Your task to perform on an android device: search for starred emails in the gmail app Image 0: 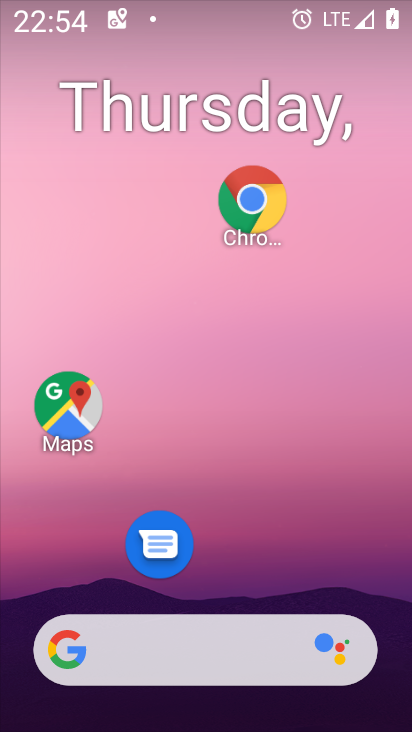
Step 0: drag from (224, 600) to (322, 50)
Your task to perform on an android device: search for starred emails in the gmail app Image 1: 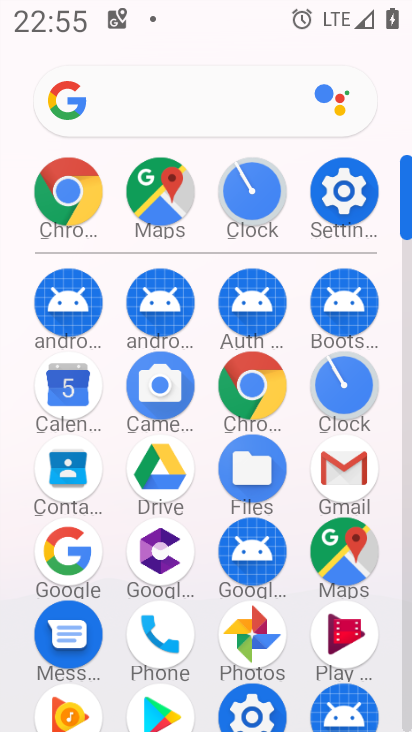
Step 1: click (326, 451)
Your task to perform on an android device: search for starred emails in the gmail app Image 2: 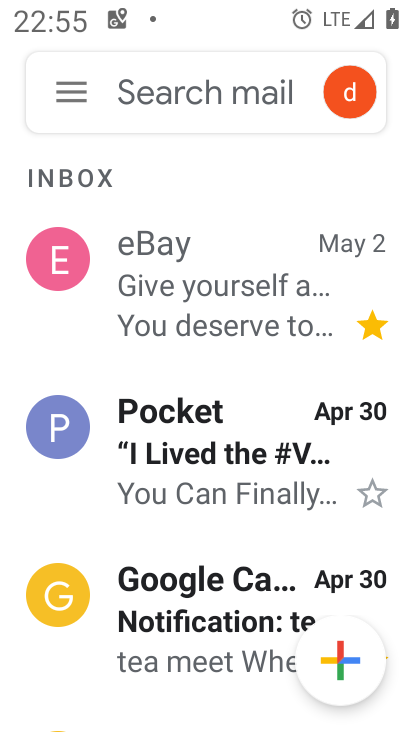
Step 2: click (74, 98)
Your task to perform on an android device: search for starred emails in the gmail app Image 3: 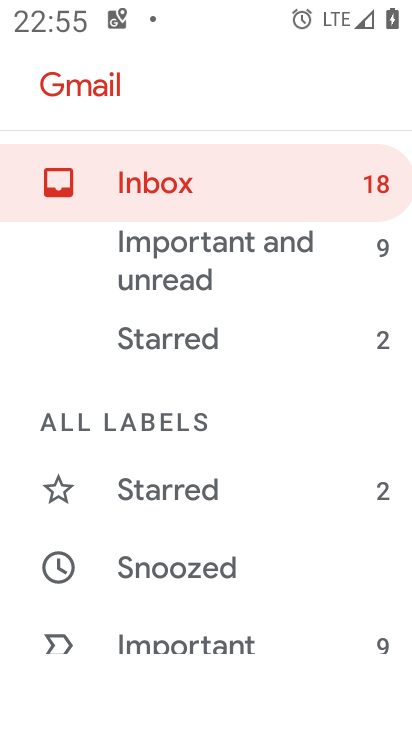
Step 3: click (109, 507)
Your task to perform on an android device: search for starred emails in the gmail app Image 4: 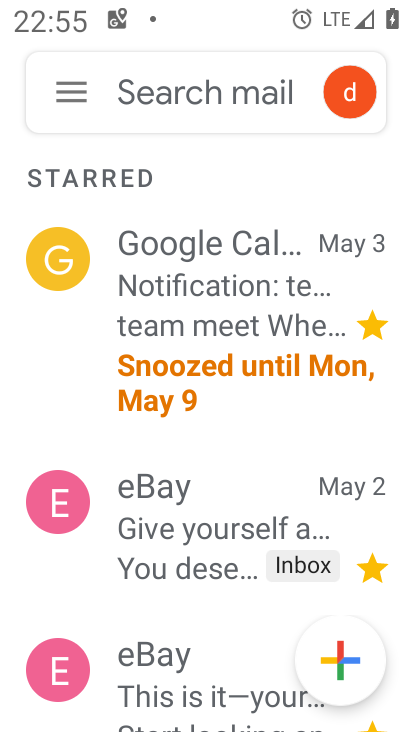
Step 4: task complete